Your task to perform on an android device: toggle sleep mode Image 0: 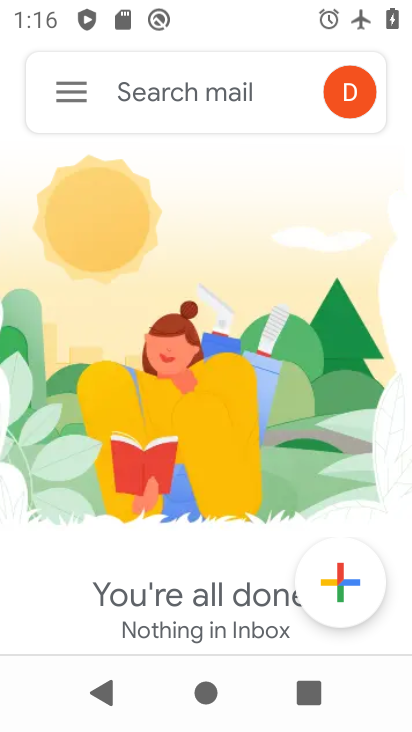
Step 0: press home button
Your task to perform on an android device: toggle sleep mode Image 1: 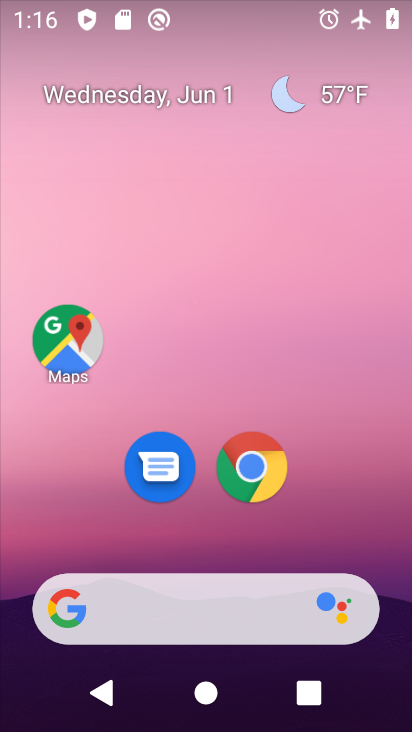
Step 1: drag from (355, 522) to (364, 90)
Your task to perform on an android device: toggle sleep mode Image 2: 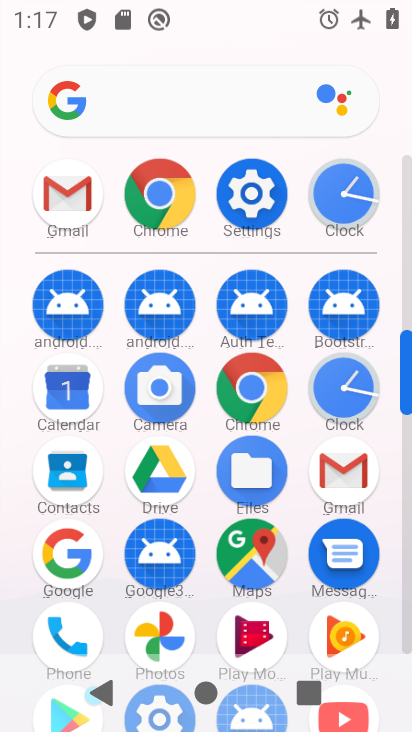
Step 2: click (241, 220)
Your task to perform on an android device: toggle sleep mode Image 3: 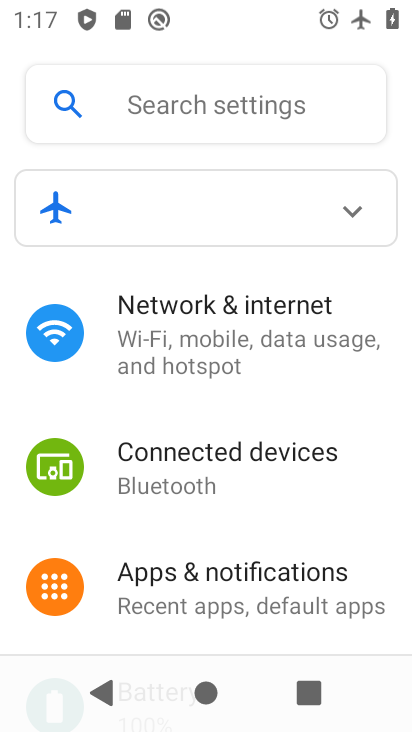
Step 3: drag from (383, 459) to (379, 341)
Your task to perform on an android device: toggle sleep mode Image 4: 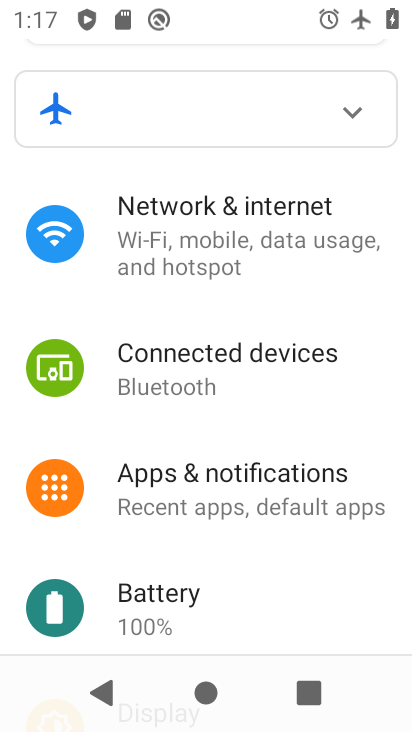
Step 4: drag from (352, 552) to (356, 385)
Your task to perform on an android device: toggle sleep mode Image 5: 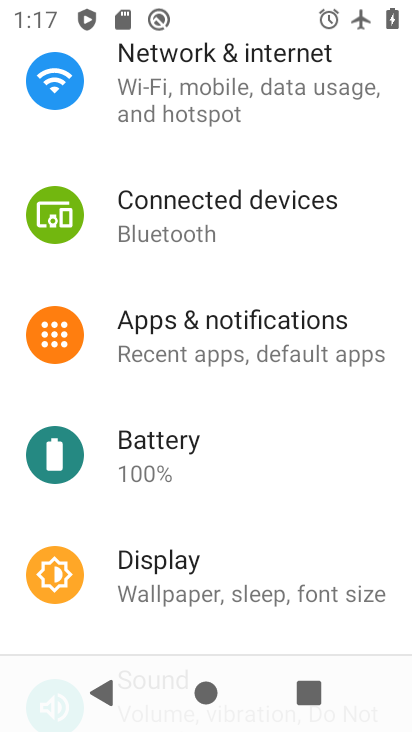
Step 5: drag from (352, 530) to (367, 383)
Your task to perform on an android device: toggle sleep mode Image 6: 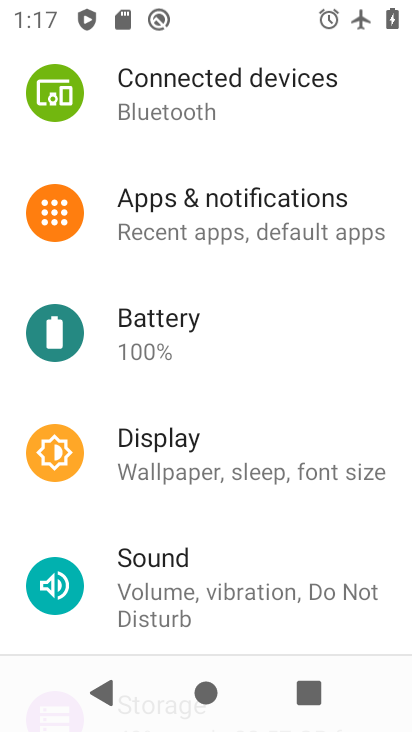
Step 6: drag from (371, 541) to (370, 388)
Your task to perform on an android device: toggle sleep mode Image 7: 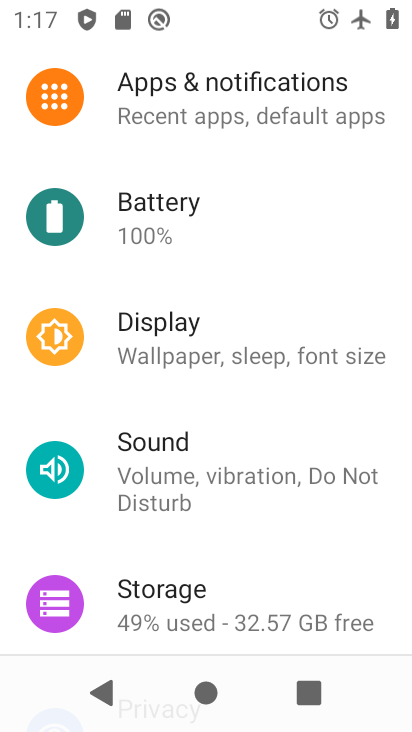
Step 7: drag from (369, 539) to (375, 405)
Your task to perform on an android device: toggle sleep mode Image 8: 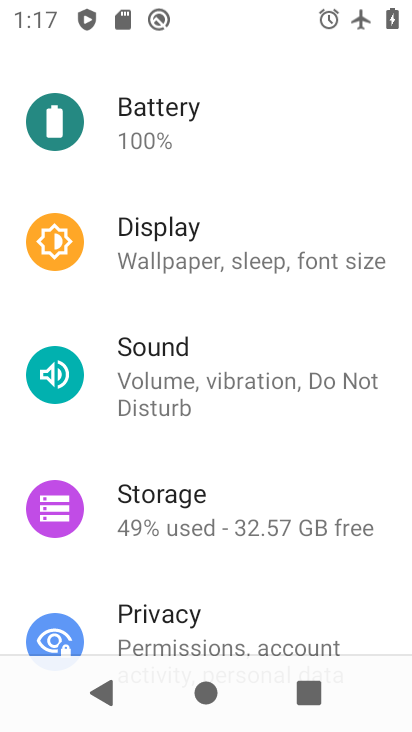
Step 8: click (265, 266)
Your task to perform on an android device: toggle sleep mode Image 9: 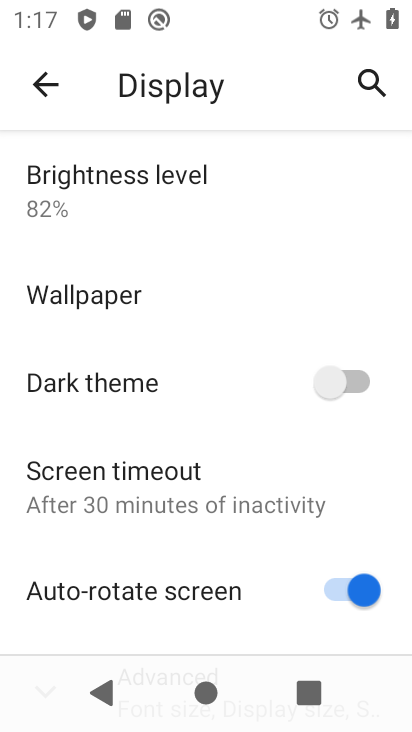
Step 9: drag from (272, 584) to (292, 342)
Your task to perform on an android device: toggle sleep mode Image 10: 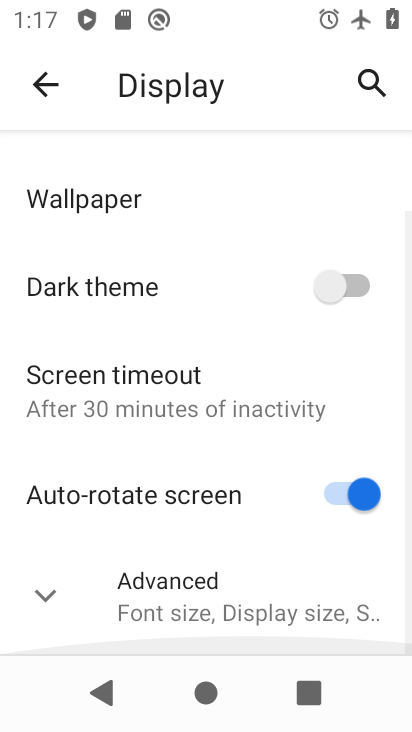
Step 10: click (285, 588)
Your task to perform on an android device: toggle sleep mode Image 11: 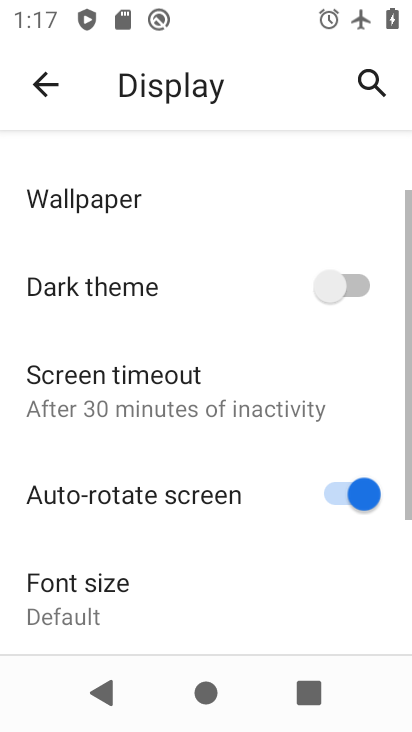
Step 11: task complete